Your task to perform on an android device: turn on the 12-hour format for clock Image 0: 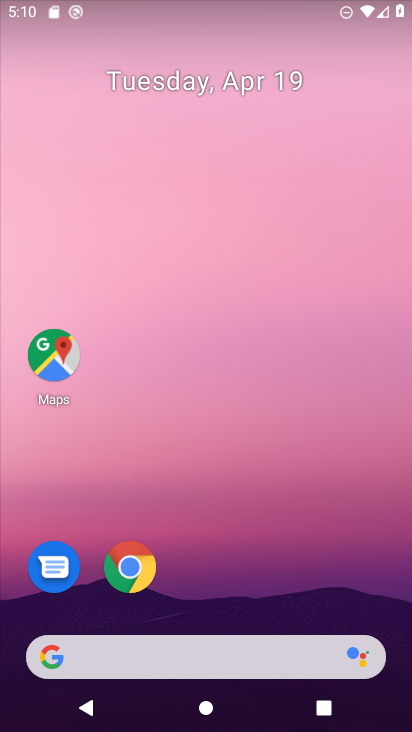
Step 0: drag from (297, 543) to (240, 31)
Your task to perform on an android device: turn on the 12-hour format for clock Image 1: 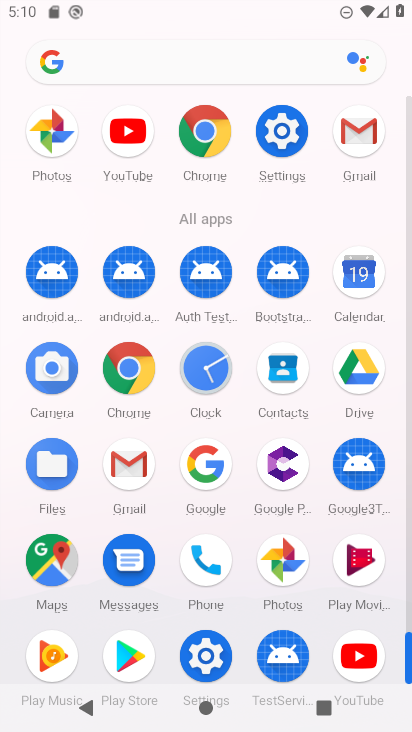
Step 1: drag from (8, 574) to (14, 279)
Your task to perform on an android device: turn on the 12-hour format for clock Image 2: 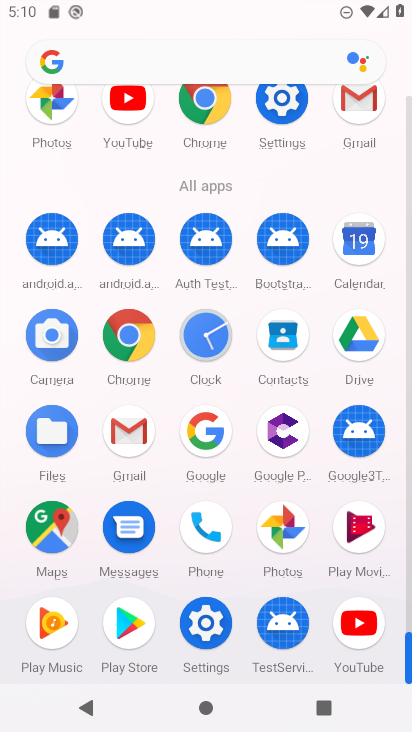
Step 2: click (207, 333)
Your task to perform on an android device: turn on the 12-hour format for clock Image 3: 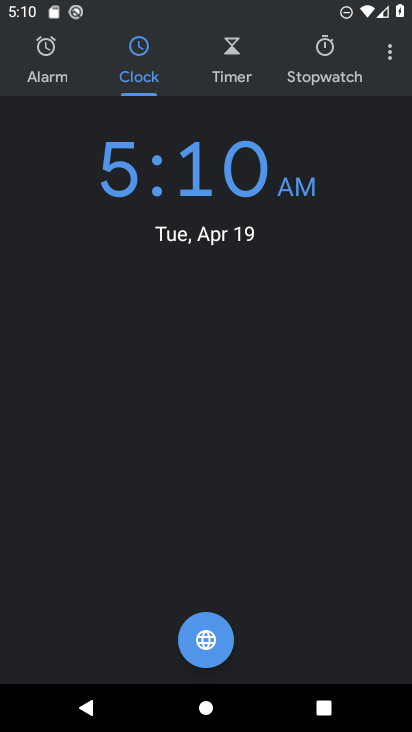
Step 3: click (389, 52)
Your task to perform on an android device: turn on the 12-hour format for clock Image 4: 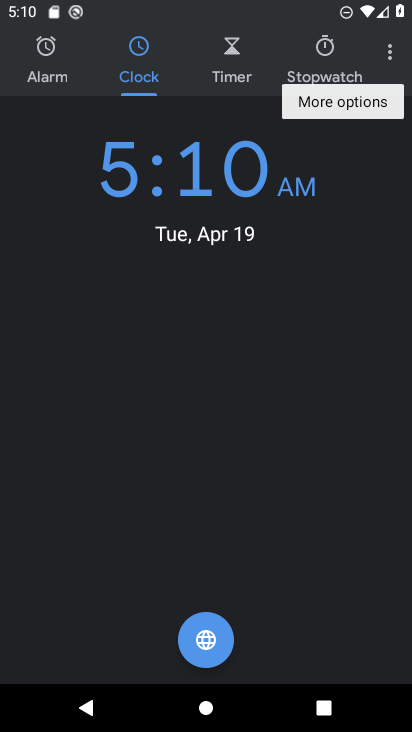
Step 4: click (386, 54)
Your task to perform on an android device: turn on the 12-hour format for clock Image 5: 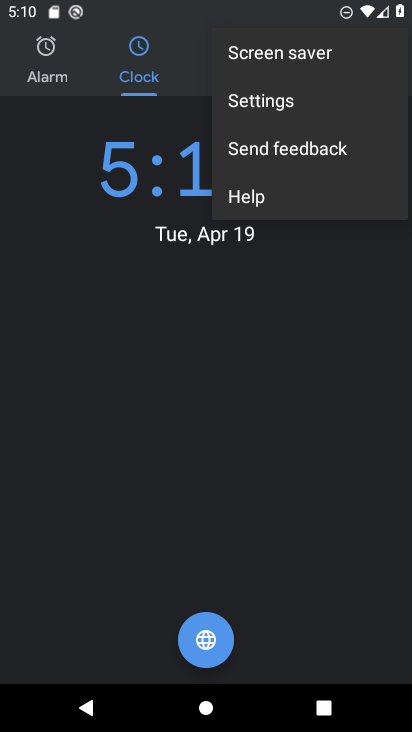
Step 5: click (273, 111)
Your task to perform on an android device: turn on the 12-hour format for clock Image 6: 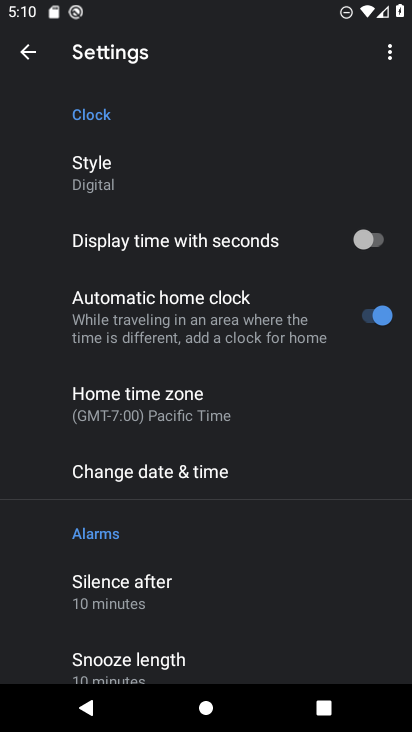
Step 6: click (195, 470)
Your task to perform on an android device: turn on the 12-hour format for clock Image 7: 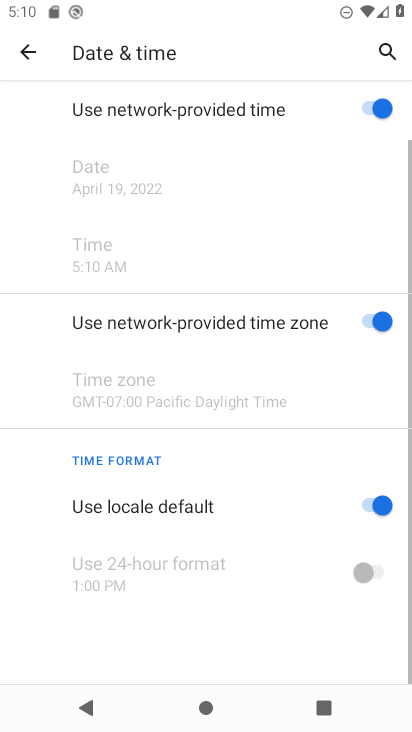
Step 7: task complete